Your task to perform on an android device: add a contact Image 0: 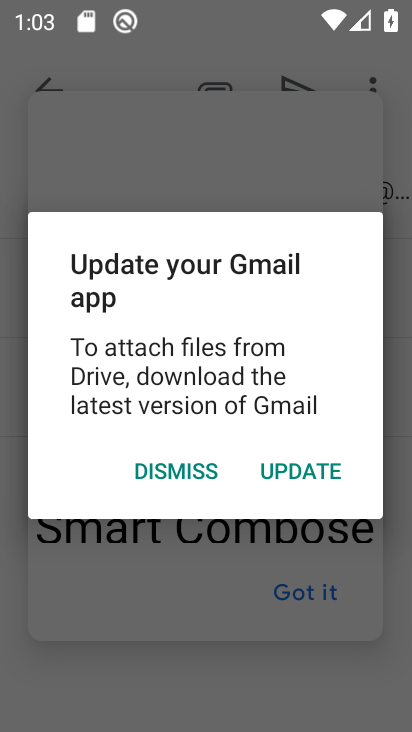
Step 0: press home button
Your task to perform on an android device: add a contact Image 1: 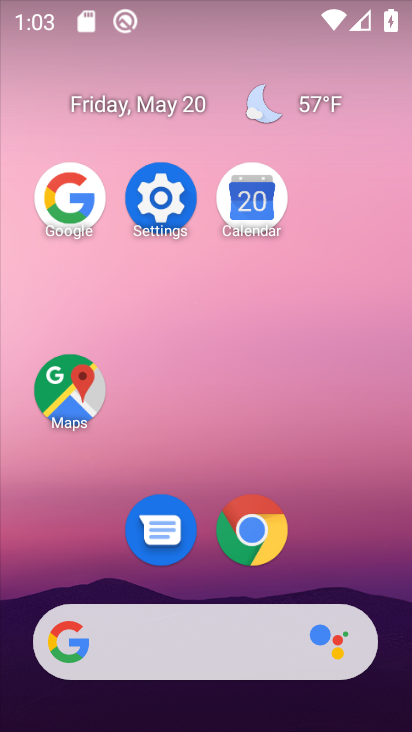
Step 1: drag from (359, 549) to (294, 132)
Your task to perform on an android device: add a contact Image 2: 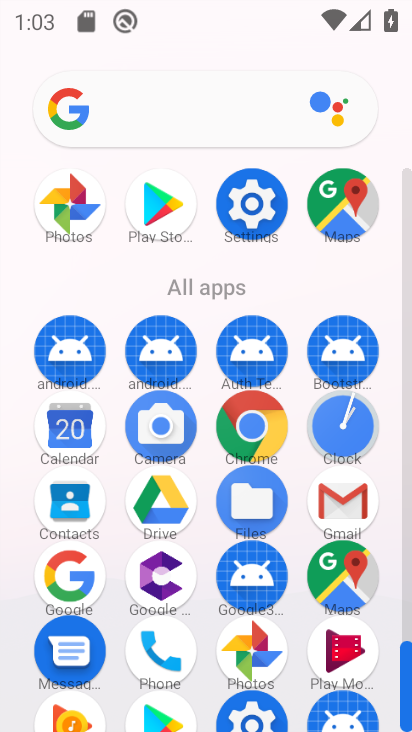
Step 2: drag from (79, 502) to (15, 275)
Your task to perform on an android device: add a contact Image 3: 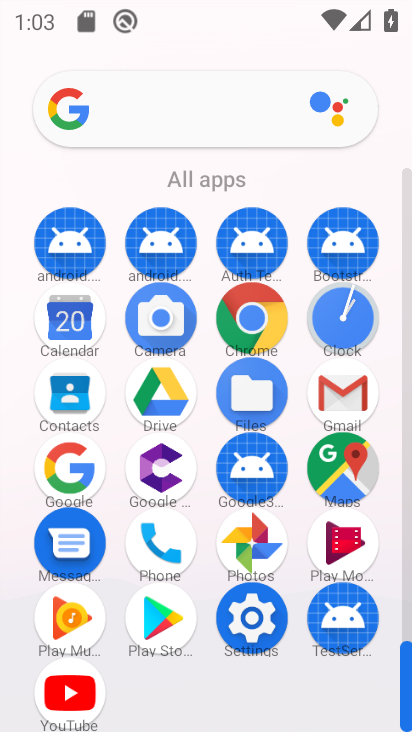
Step 3: drag from (69, 398) to (99, 311)
Your task to perform on an android device: add a contact Image 4: 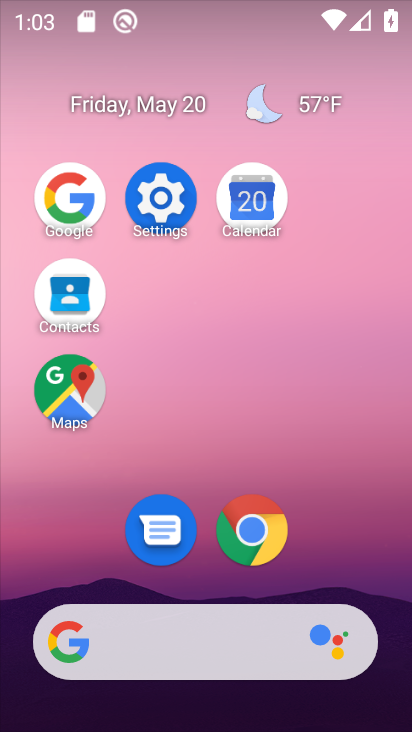
Step 4: click (79, 288)
Your task to perform on an android device: add a contact Image 5: 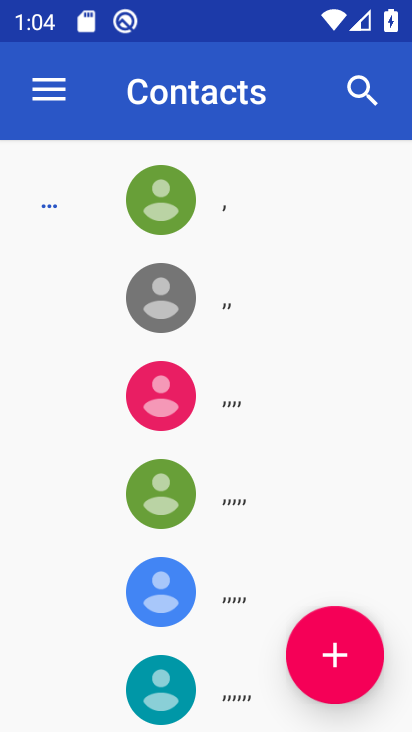
Step 5: click (355, 652)
Your task to perform on an android device: add a contact Image 6: 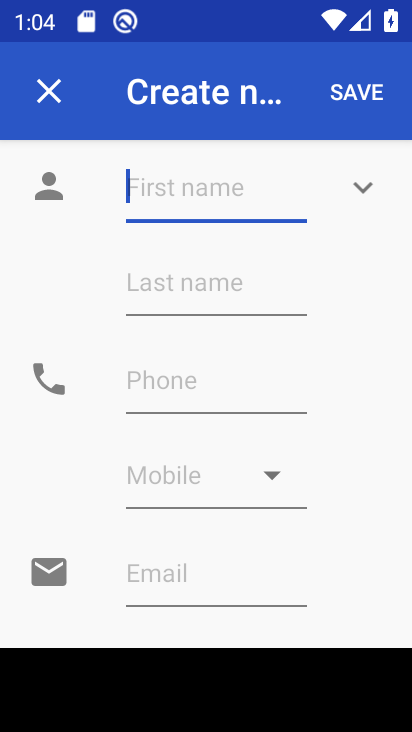
Step 6: type "ttvs"
Your task to perform on an android device: add a contact Image 7: 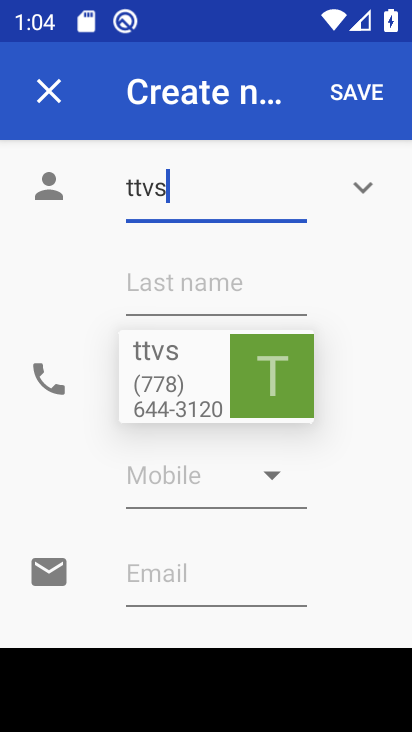
Step 7: click (205, 273)
Your task to perform on an android device: add a contact Image 8: 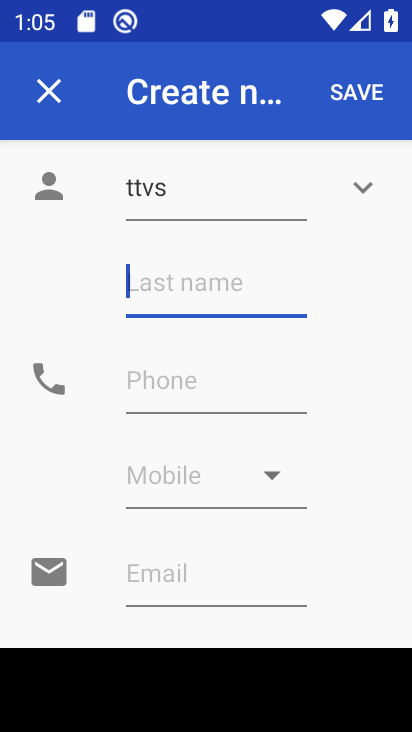
Step 8: type "ssty"
Your task to perform on an android device: add a contact Image 9: 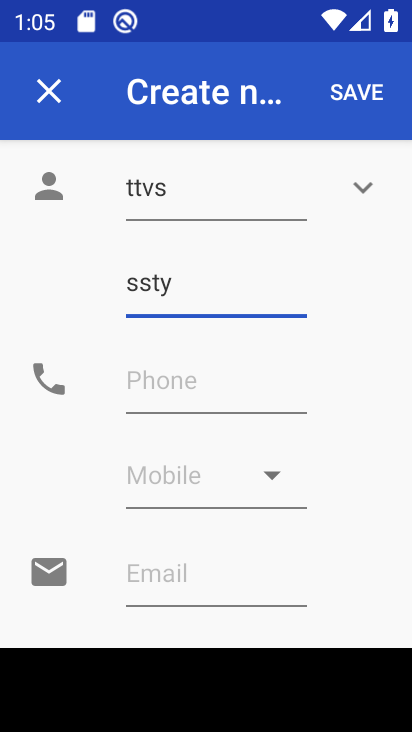
Step 9: click (227, 383)
Your task to perform on an android device: add a contact Image 10: 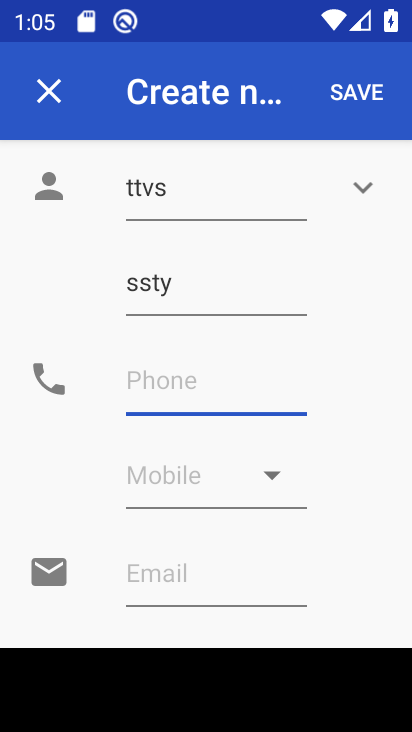
Step 10: type "4433225566"
Your task to perform on an android device: add a contact Image 11: 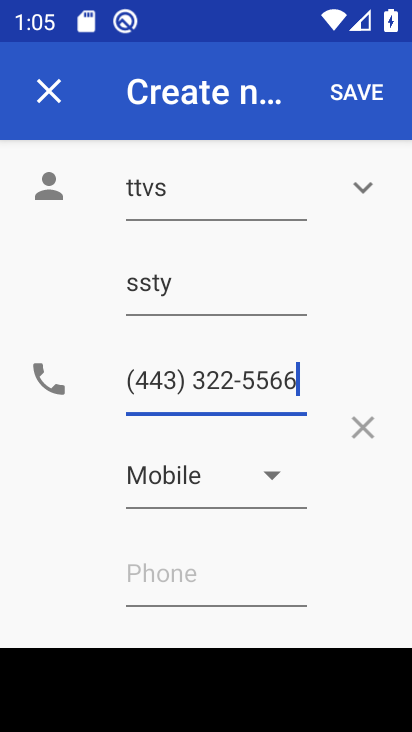
Step 11: click (363, 93)
Your task to perform on an android device: add a contact Image 12: 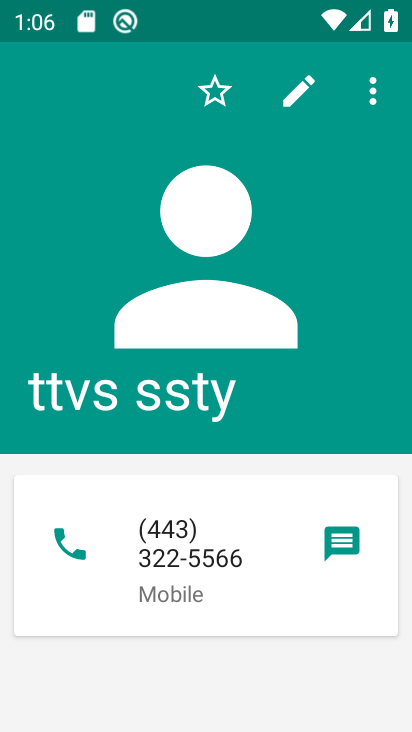
Step 12: task complete